Your task to perform on an android device: Open calendar and show me the third week of next month Image 0: 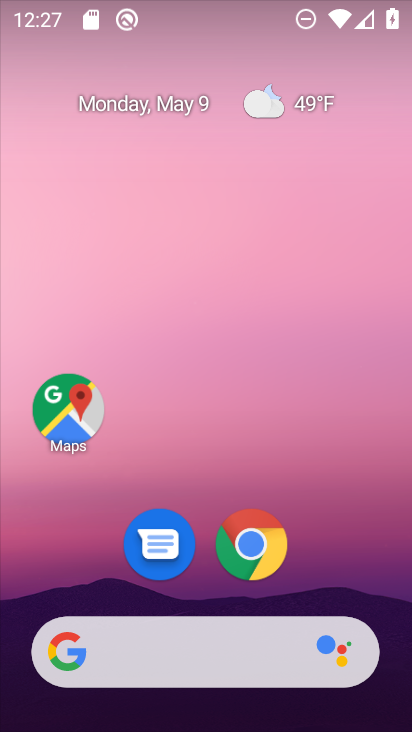
Step 0: drag from (308, 577) to (362, 59)
Your task to perform on an android device: Open calendar and show me the third week of next month Image 1: 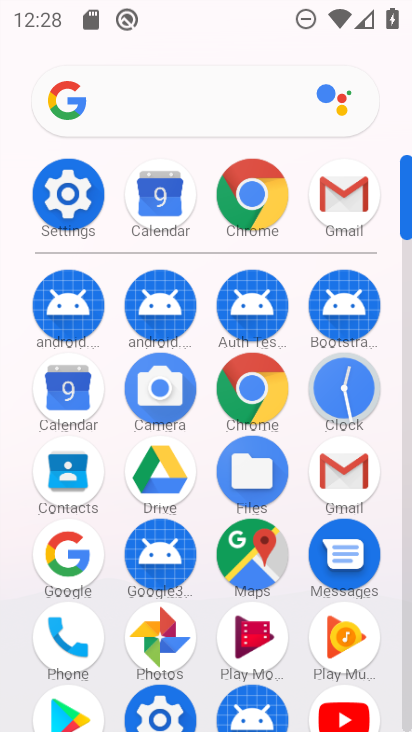
Step 1: click (38, 399)
Your task to perform on an android device: Open calendar and show me the third week of next month Image 2: 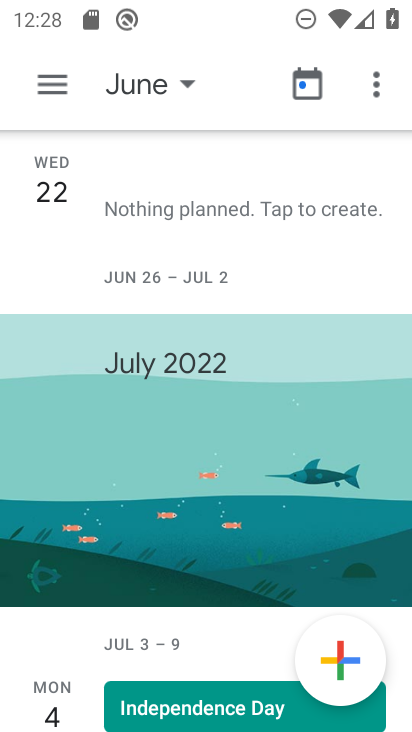
Step 2: click (178, 90)
Your task to perform on an android device: Open calendar and show me the third week of next month Image 3: 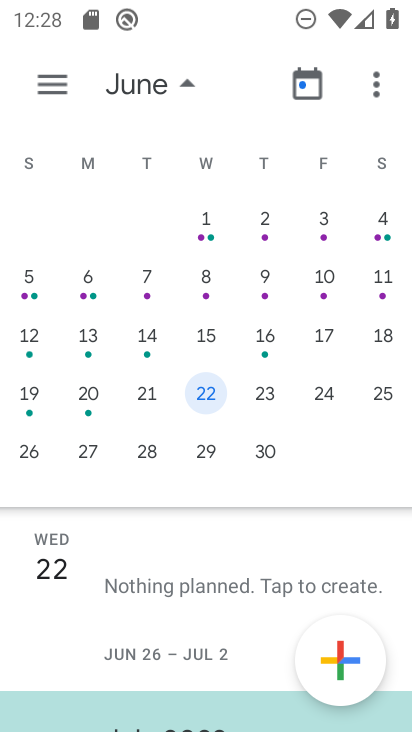
Step 3: click (142, 385)
Your task to perform on an android device: Open calendar and show me the third week of next month Image 4: 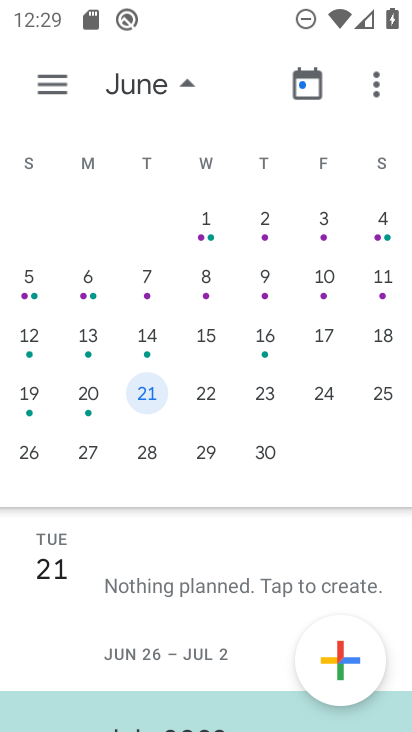
Step 4: task complete